Your task to perform on an android device: Search for seafood restaurants on Google Maps Image 0: 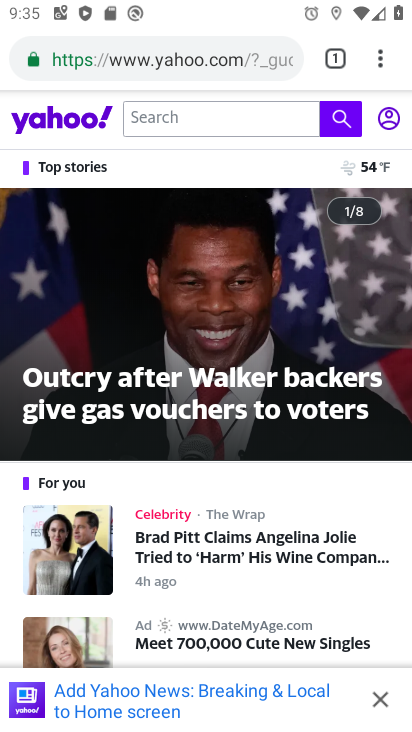
Step 0: press home button
Your task to perform on an android device: Search for seafood restaurants on Google Maps Image 1: 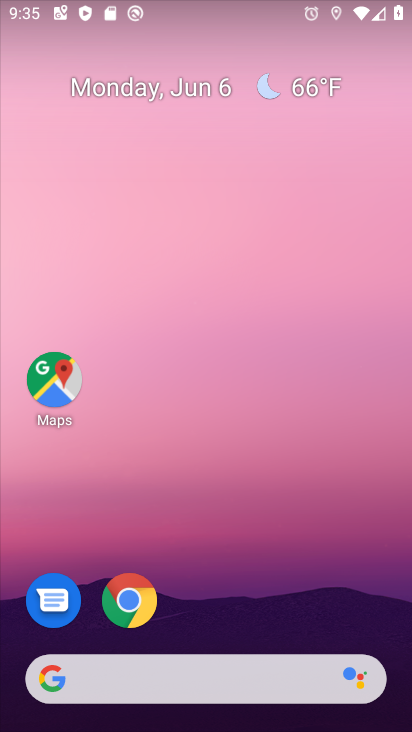
Step 1: click (66, 380)
Your task to perform on an android device: Search for seafood restaurants on Google Maps Image 2: 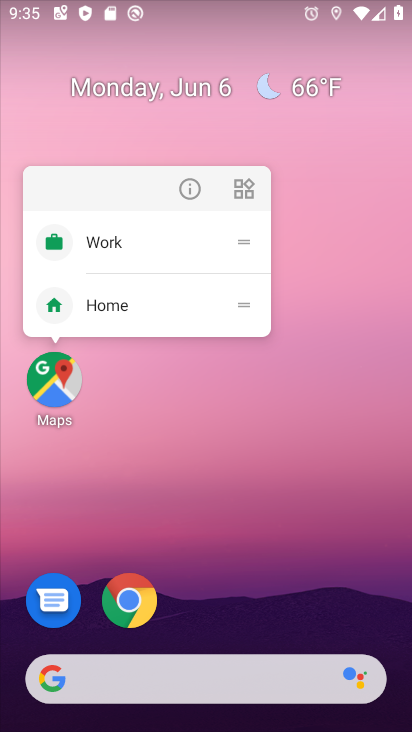
Step 2: click (55, 378)
Your task to perform on an android device: Search for seafood restaurants on Google Maps Image 3: 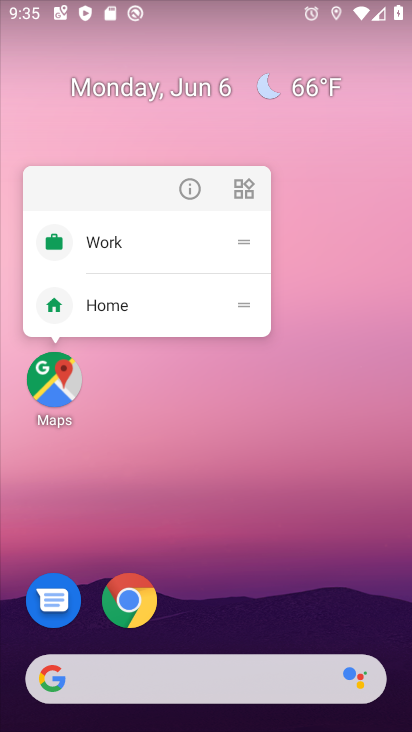
Step 3: click (55, 378)
Your task to perform on an android device: Search for seafood restaurants on Google Maps Image 4: 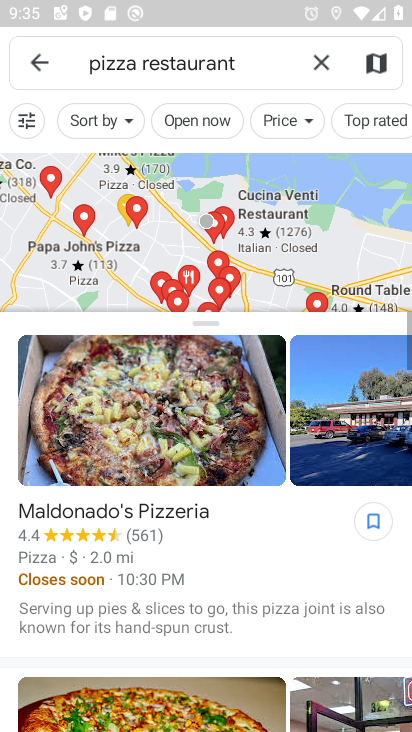
Step 4: click (323, 65)
Your task to perform on an android device: Search for seafood restaurants on Google Maps Image 5: 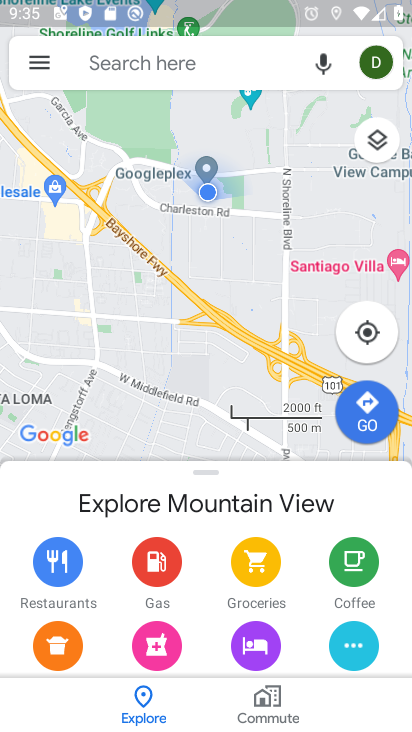
Step 5: click (162, 67)
Your task to perform on an android device: Search for seafood restaurants on Google Maps Image 6: 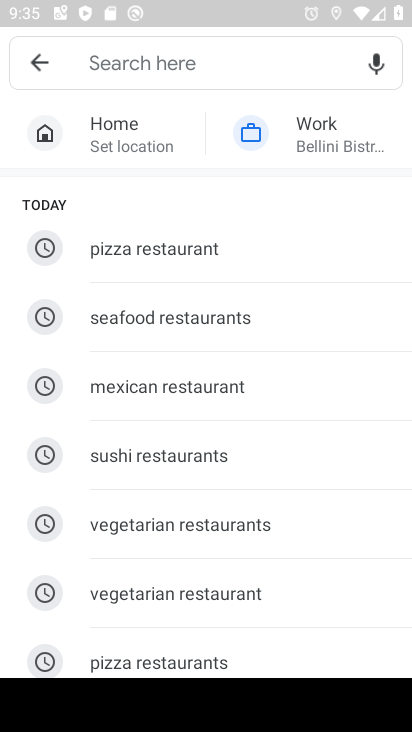
Step 6: click (134, 314)
Your task to perform on an android device: Search for seafood restaurants on Google Maps Image 7: 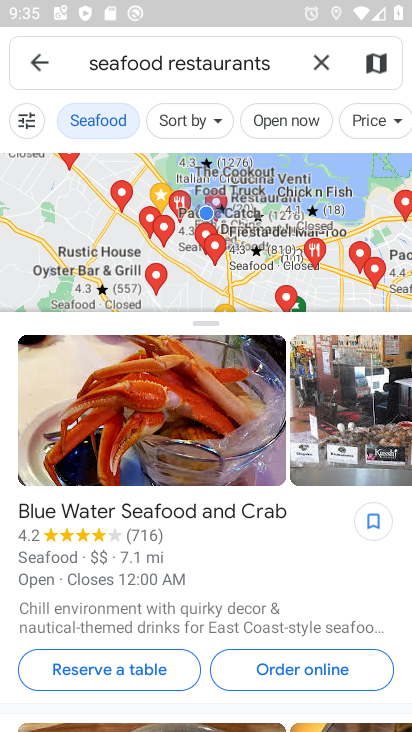
Step 7: task complete